Your task to perform on an android device: Play the last video I watched on Youtube Image 0: 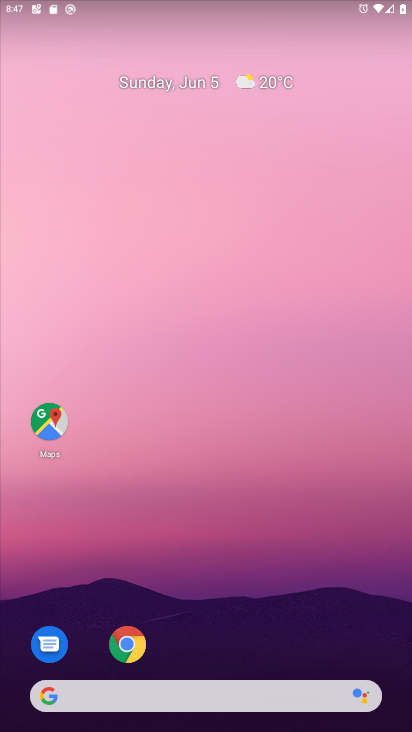
Step 0: drag from (272, 606) to (300, 211)
Your task to perform on an android device: Play the last video I watched on Youtube Image 1: 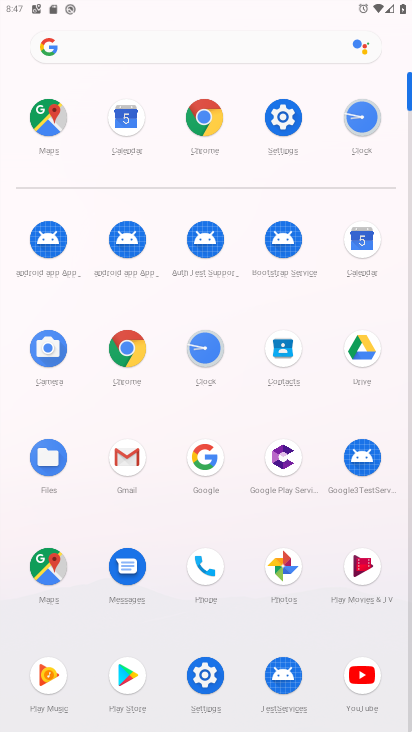
Step 1: click (355, 684)
Your task to perform on an android device: Play the last video I watched on Youtube Image 2: 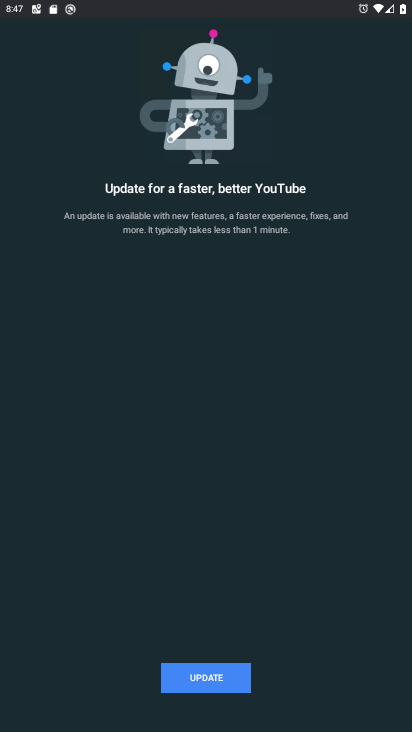
Step 2: click (215, 682)
Your task to perform on an android device: Play the last video I watched on Youtube Image 3: 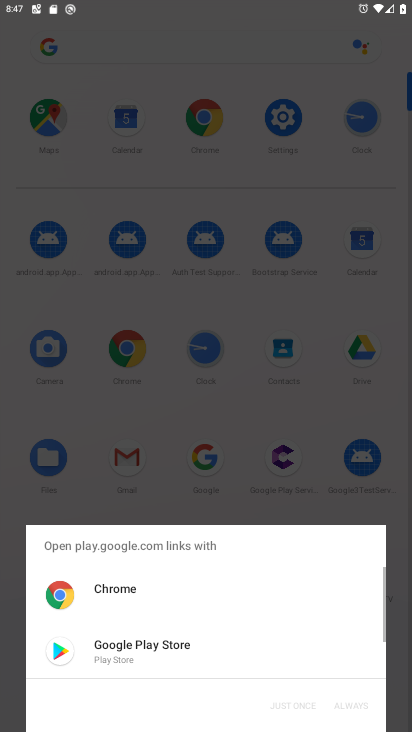
Step 3: click (179, 653)
Your task to perform on an android device: Play the last video I watched on Youtube Image 4: 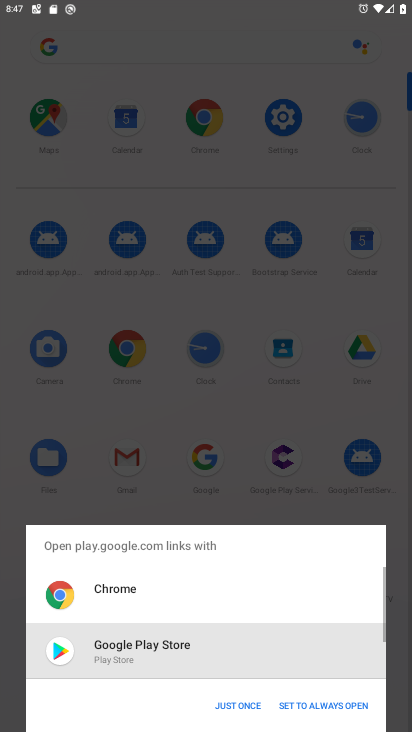
Step 4: click (242, 707)
Your task to perform on an android device: Play the last video I watched on Youtube Image 5: 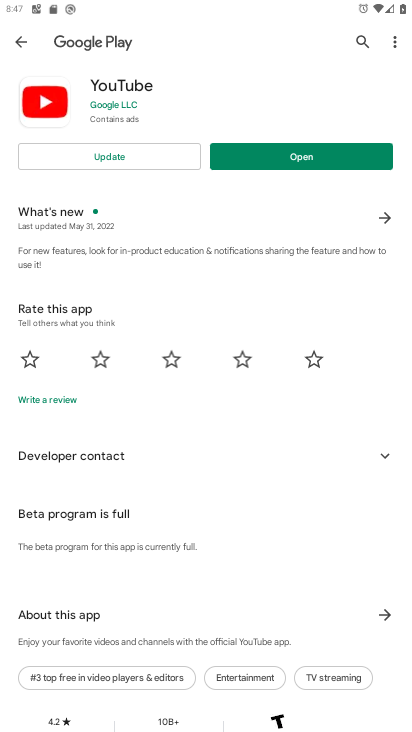
Step 5: click (160, 166)
Your task to perform on an android device: Play the last video I watched on Youtube Image 6: 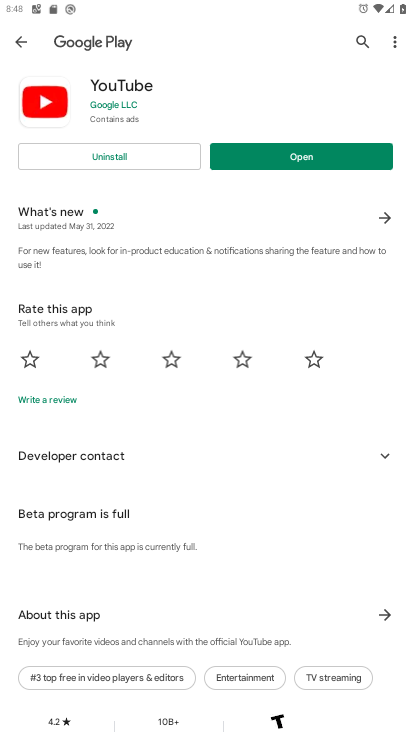
Step 6: click (304, 161)
Your task to perform on an android device: Play the last video I watched on Youtube Image 7: 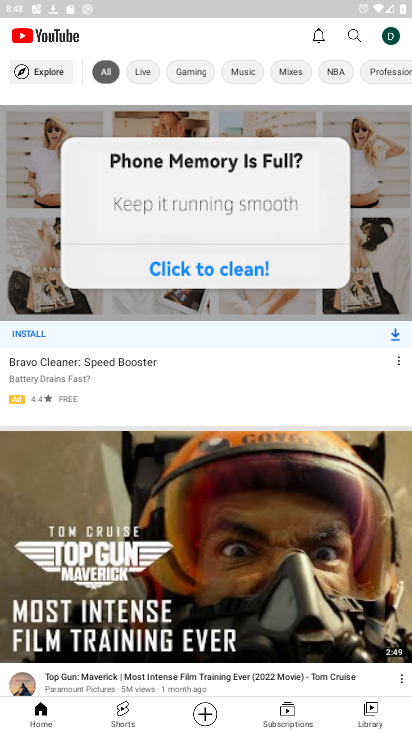
Step 7: click (365, 717)
Your task to perform on an android device: Play the last video I watched on Youtube Image 8: 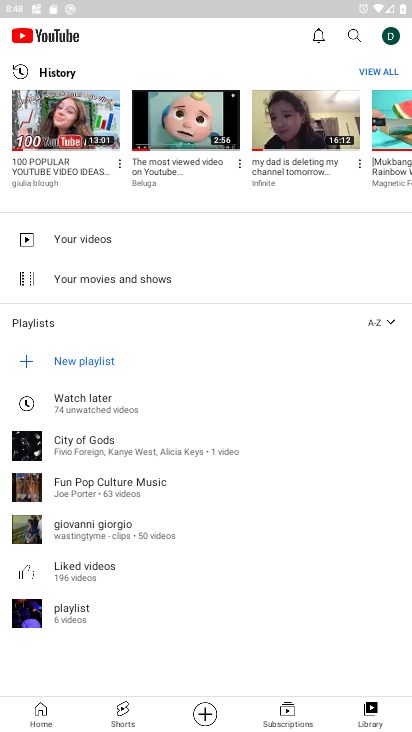
Step 8: task complete